Your task to perform on an android device: turn off location history Image 0: 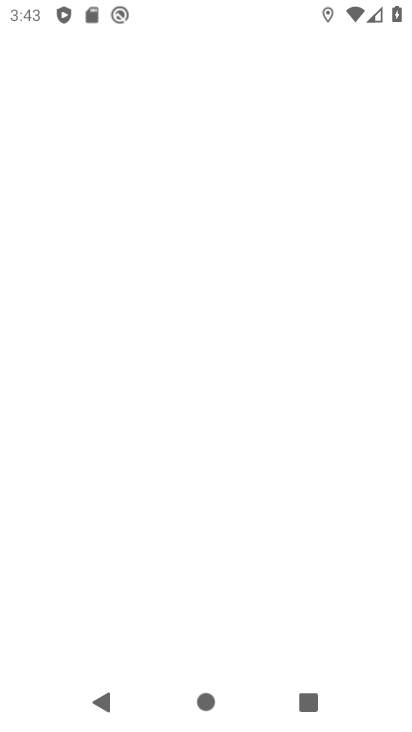
Step 0: press home button
Your task to perform on an android device: turn off location history Image 1: 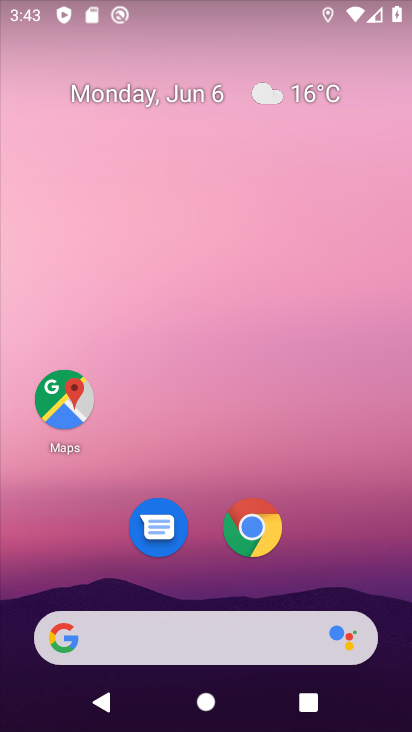
Step 1: drag from (325, 470) to (318, 94)
Your task to perform on an android device: turn off location history Image 2: 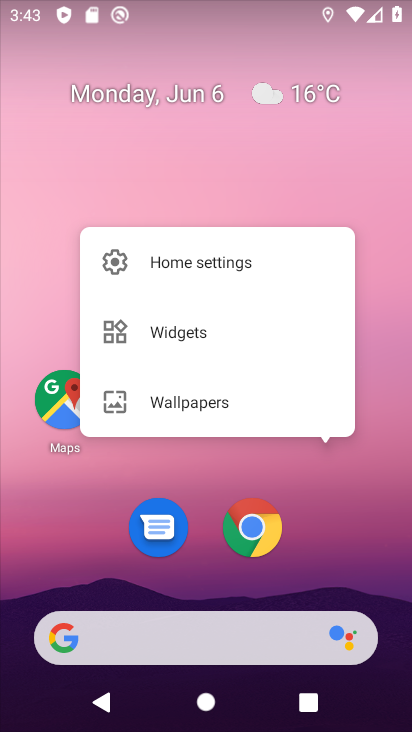
Step 2: click (343, 516)
Your task to perform on an android device: turn off location history Image 3: 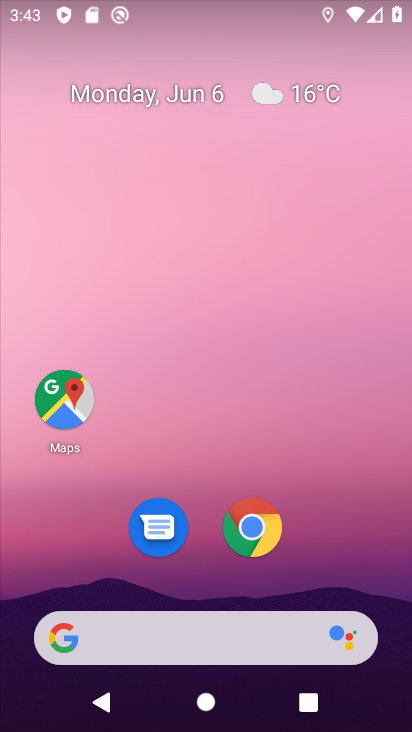
Step 3: drag from (341, 517) to (386, 165)
Your task to perform on an android device: turn off location history Image 4: 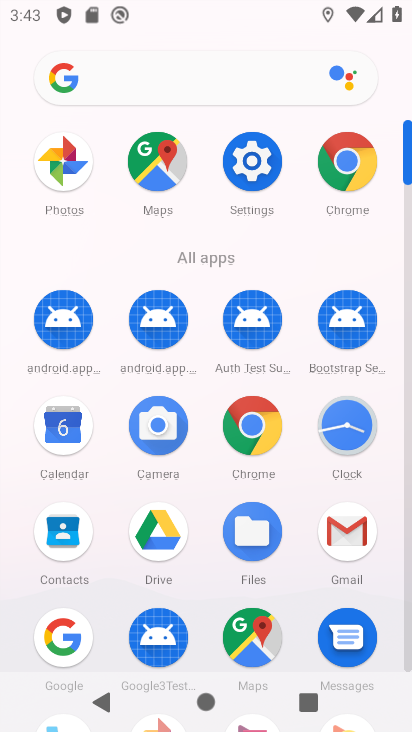
Step 4: click (239, 165)
Your task to perform on an android device: turn off location history Image 5: 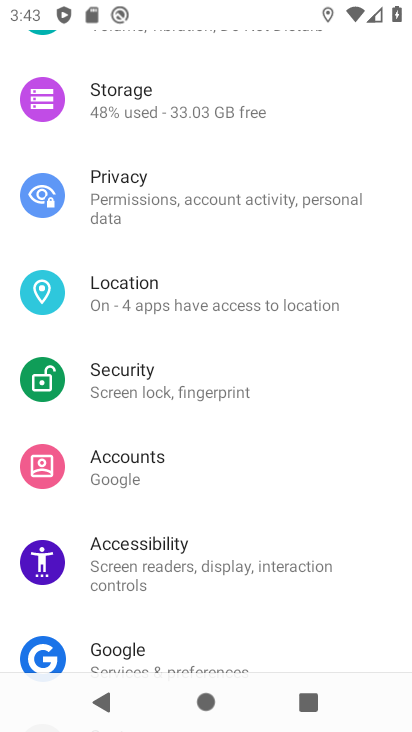
Step 5: click (224, 299)
Your task to perform on an android device: turn off location history Image 6: 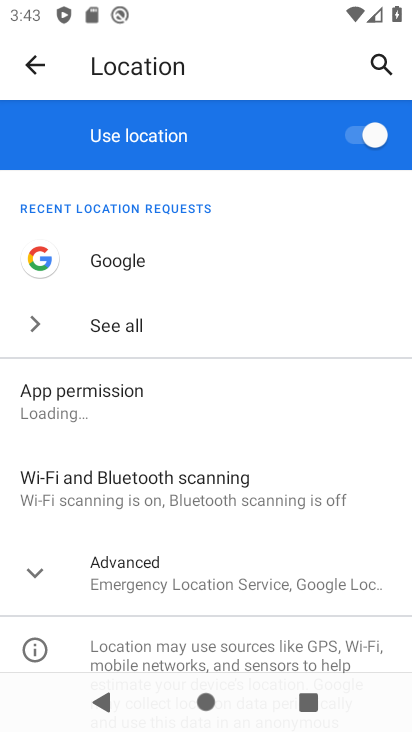
Step 6: click (227, 577)
Your task to perform on an android device: turn off location history Image 7: 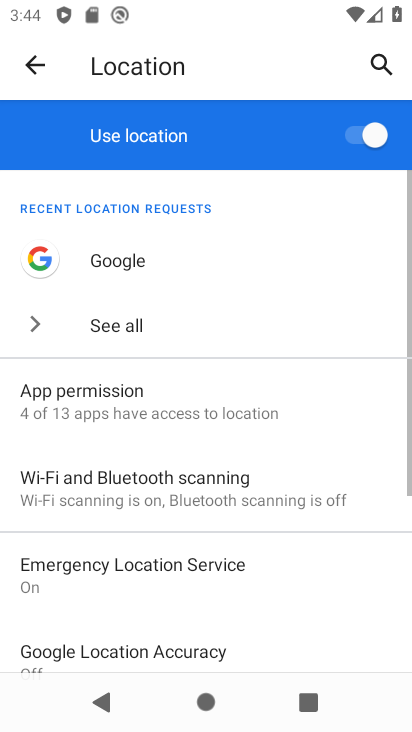
Step 7: drag from (287, 609) to (312, 317)
Your task to perform on an android device: turn off location history Image 8: 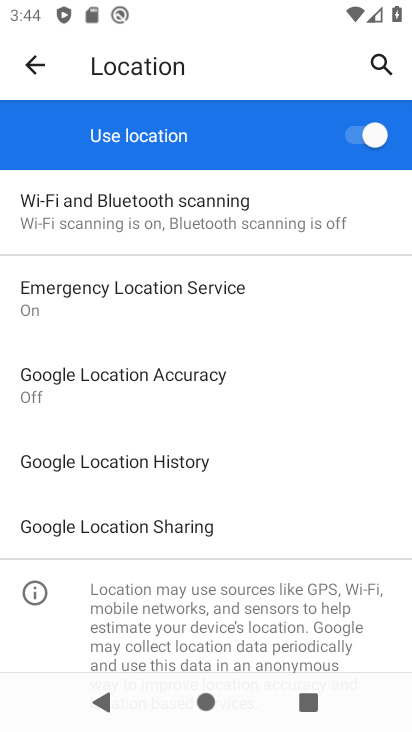
Step 8: click (211, 470)
Your task to perform on an android device: turn off location history Image 9: 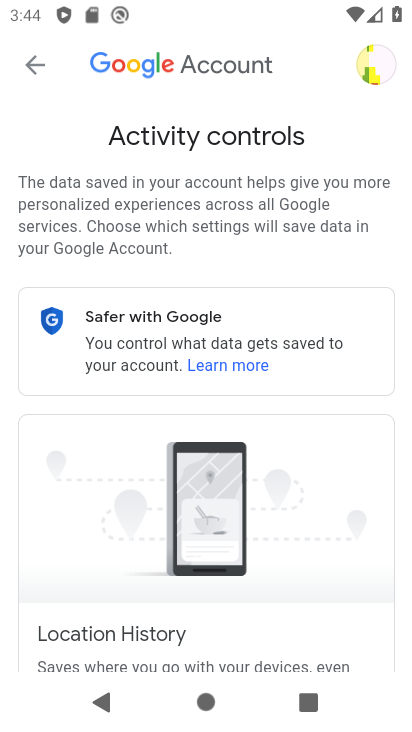
Step 9: drag from (396, 484) to (277, 124)
Your task to perform on an android device: turn off location history Image 10: 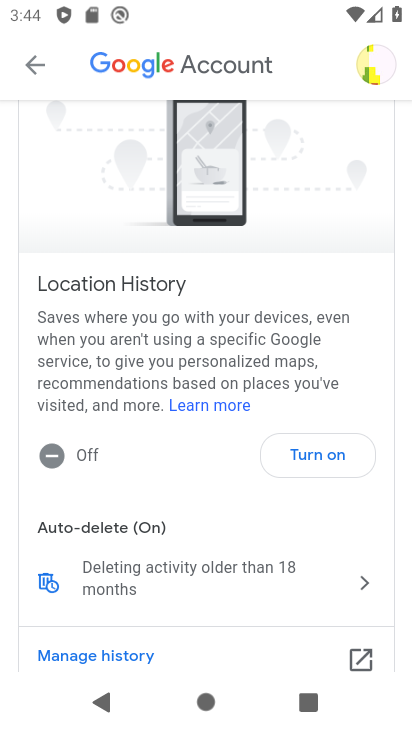
Step 10: click (69, 456)
Your task to perform on an android device: turn off location history Image 11: 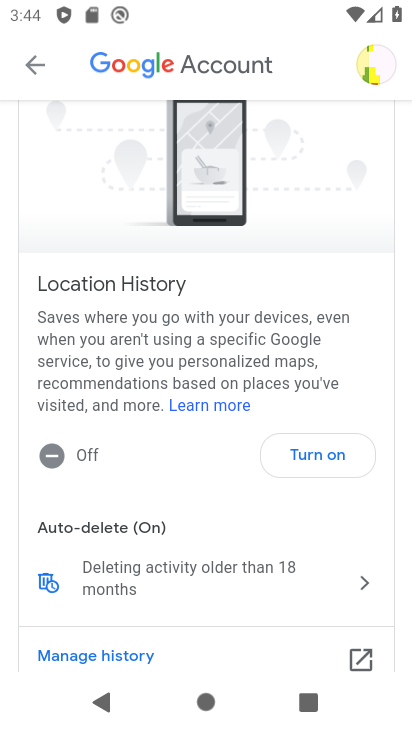
Step 11: click (42, 459)
Your task to perform on an android device: turn off location history Image 12: 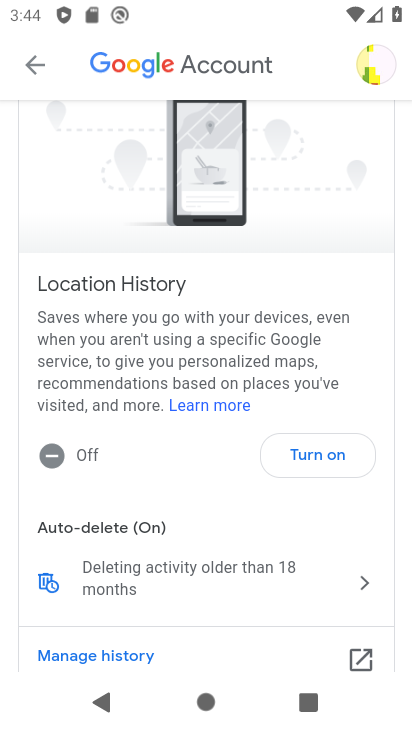
Step 12: click (42, 459)
Your task to perform on an android device: turn off location history Image 13: 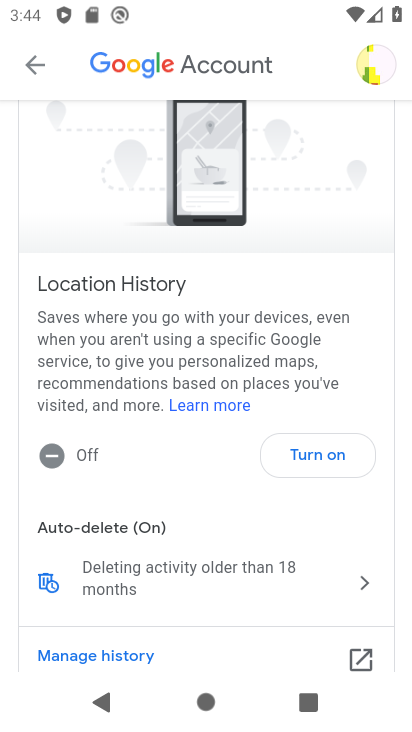
Step 13: click (42, 459)
Your task to perform on an android device: turn off location history Image 14: 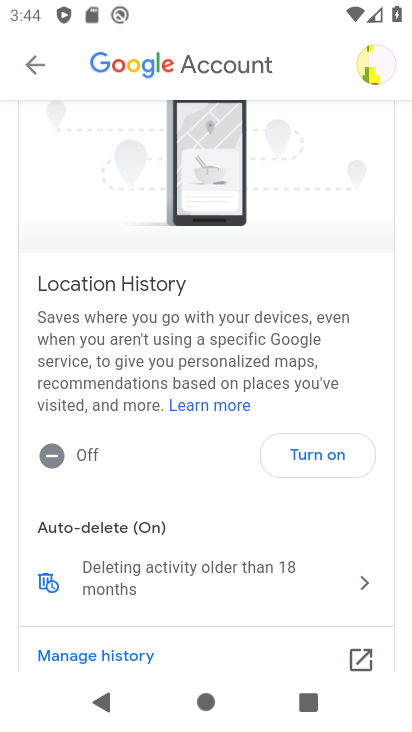
Step 14: task complete